Your task to perform on an android device: find snoozed emails in the gmail app Image 0: 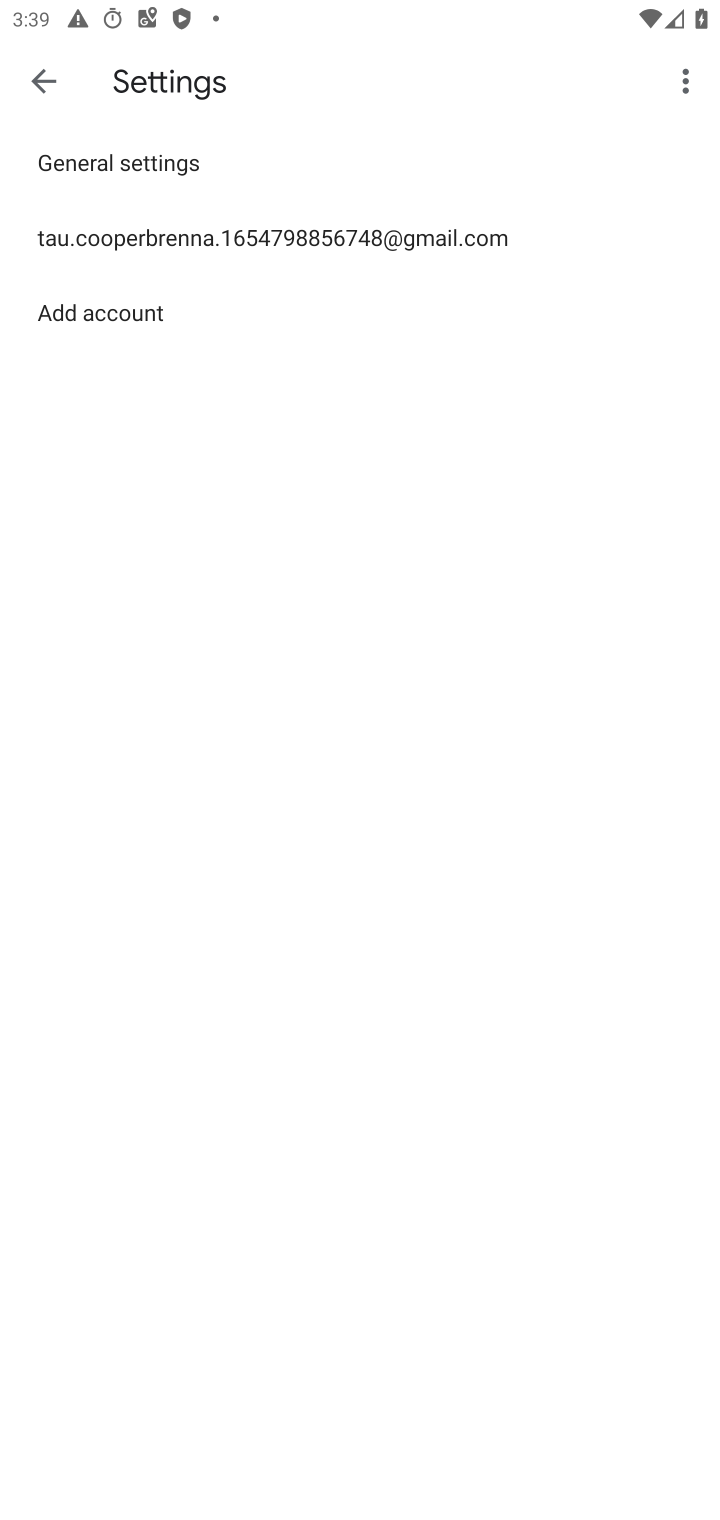
Step 0: press back button
Your task to perform on an android device: find snoozed emails in the gmail app Image 1: 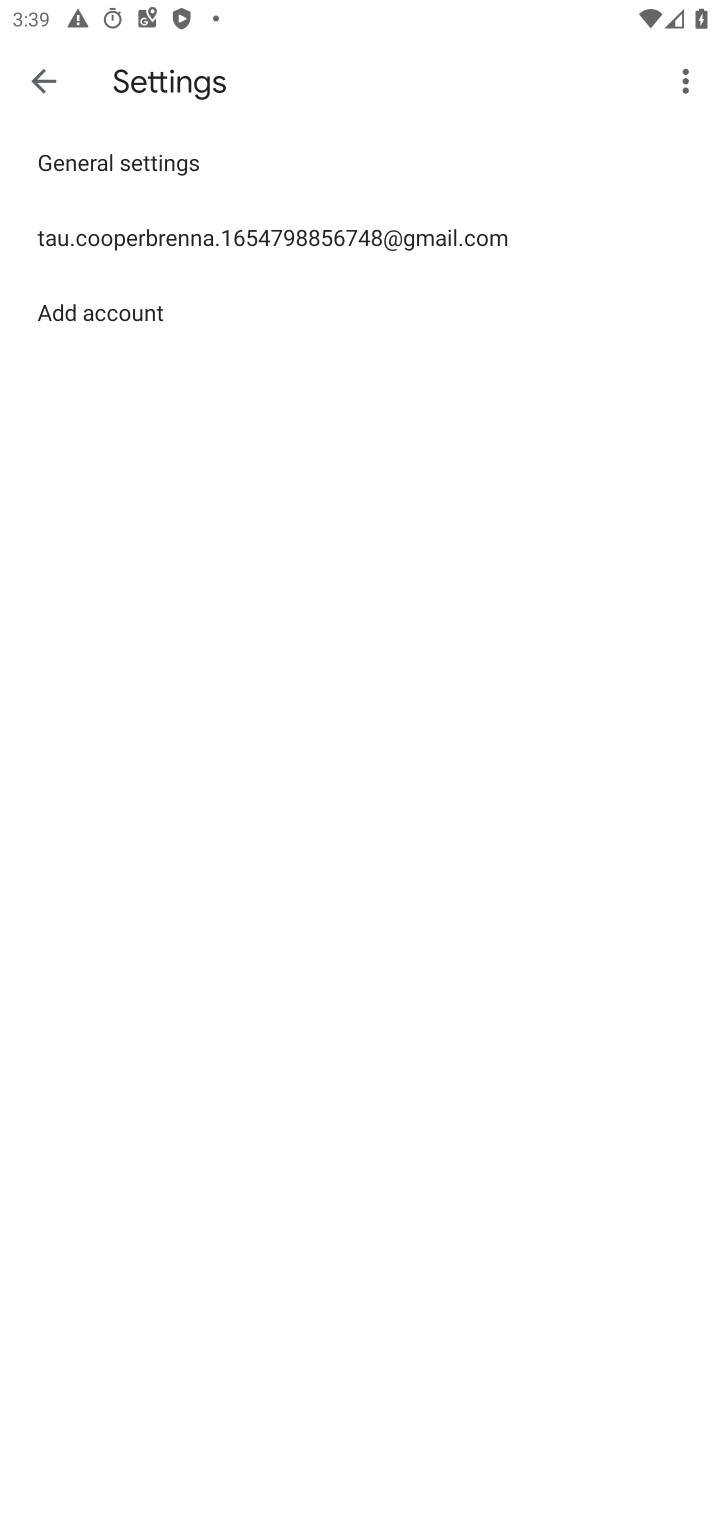
Step 1: press back button
Your task to perform on an android device: find snoozed emails in the gmail app Image 2: 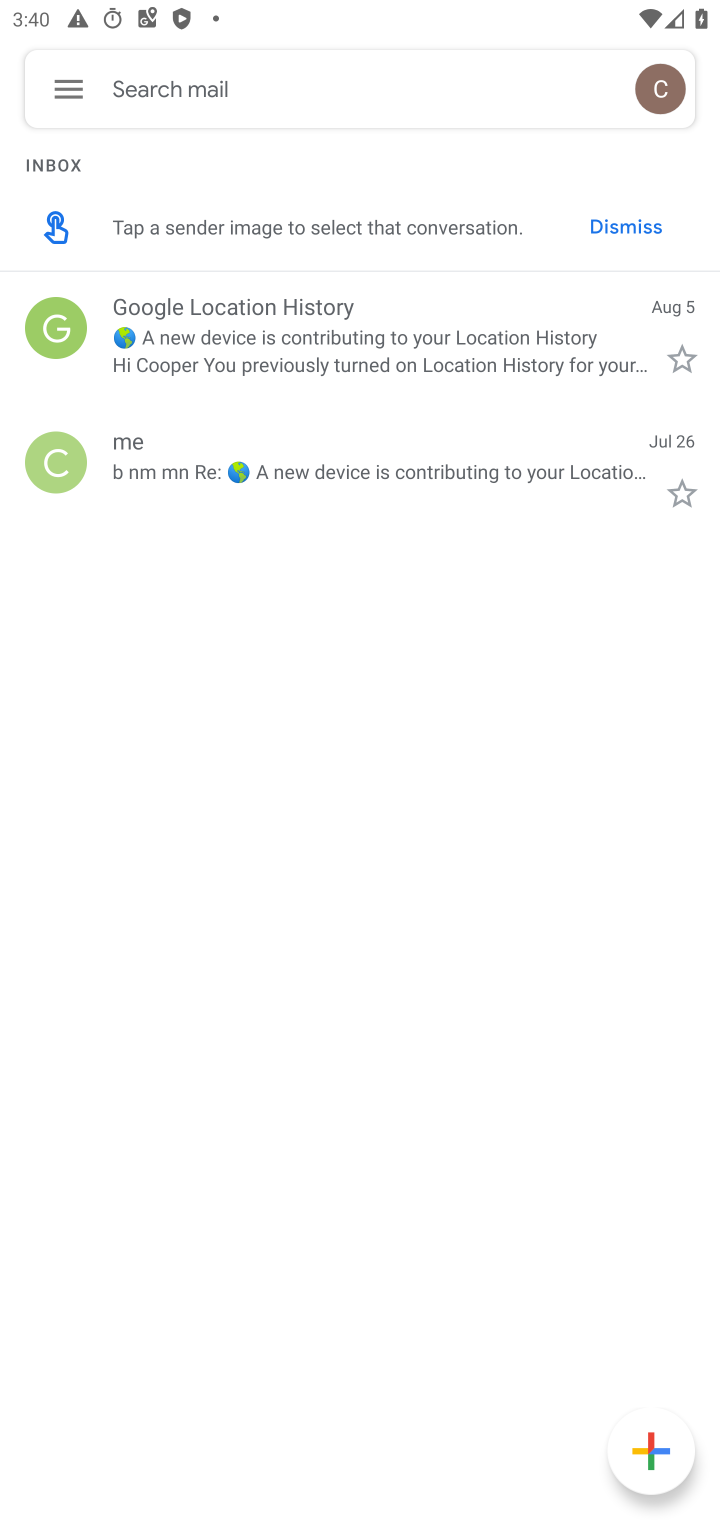
Step 2: click (70, 81)
Your task to perform on an android device: find snoozed emails in the gmail app Image 3: 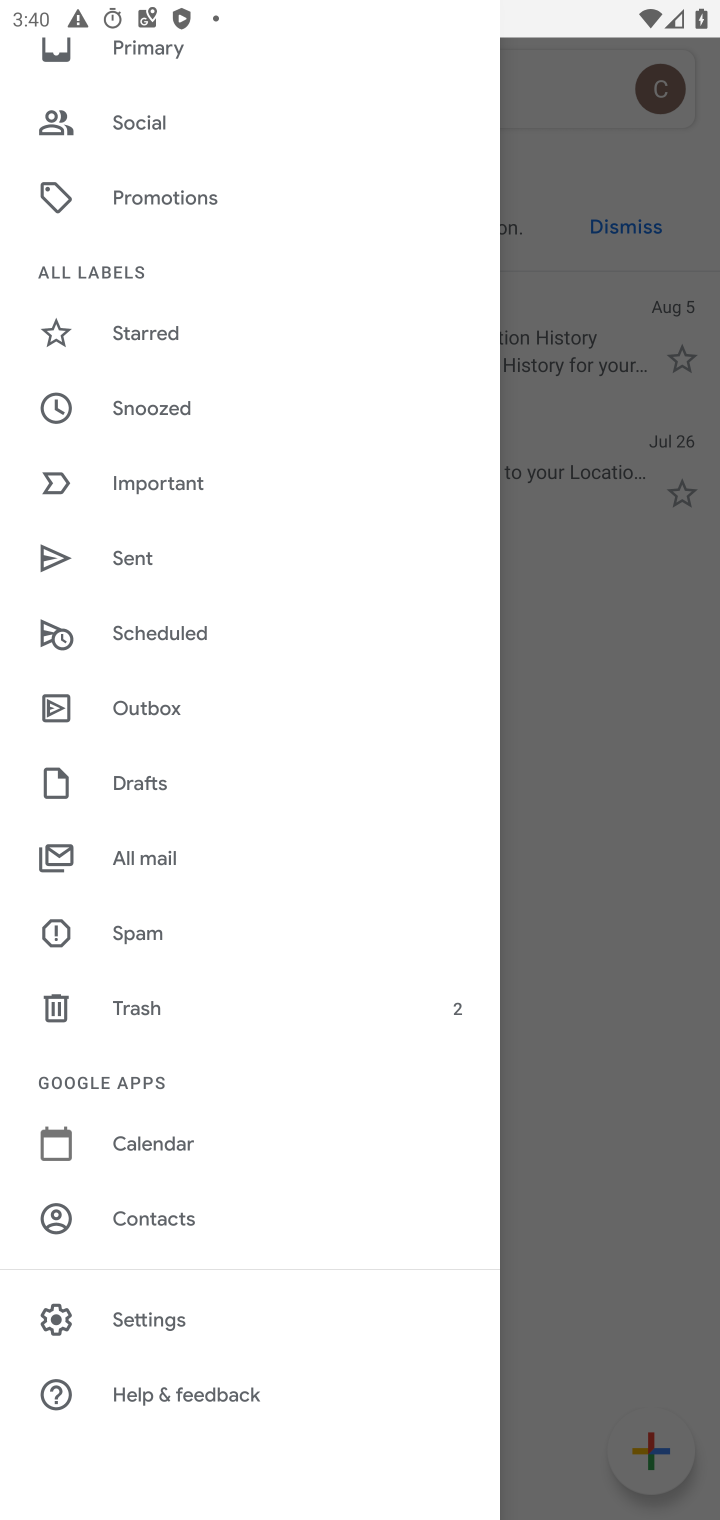
Step 3: click (166, 395)
Your task to perform on an android device: find snoozed emails in the gmail app Image 4: 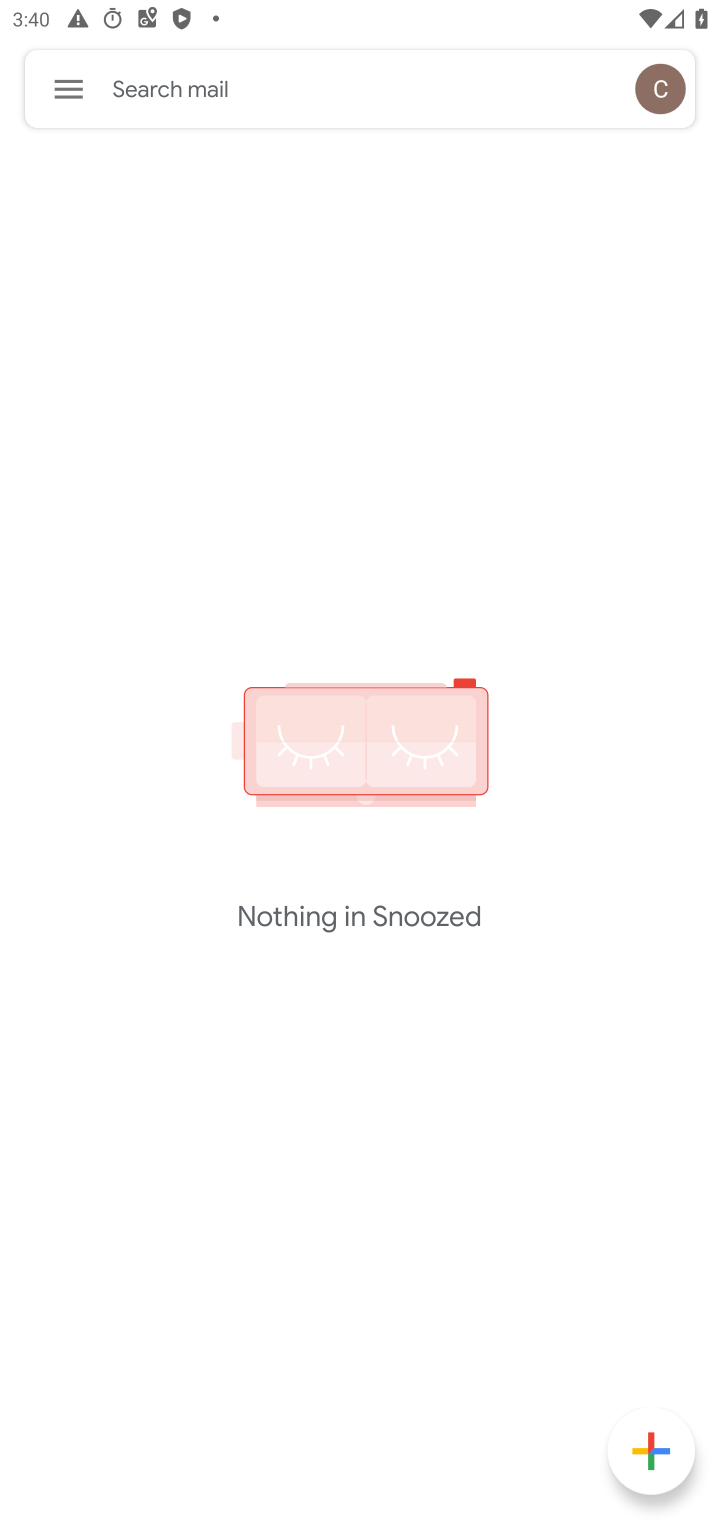
Step 4: task complete